Your task to perform on an android device: Check the news Image 0: 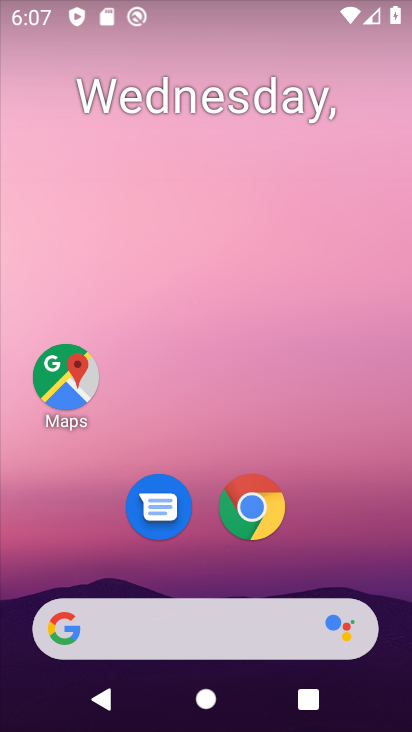
Step 0: drag from (281, 266) to (306, 24)
Your task to perform on an android device: Check the news Image 1: 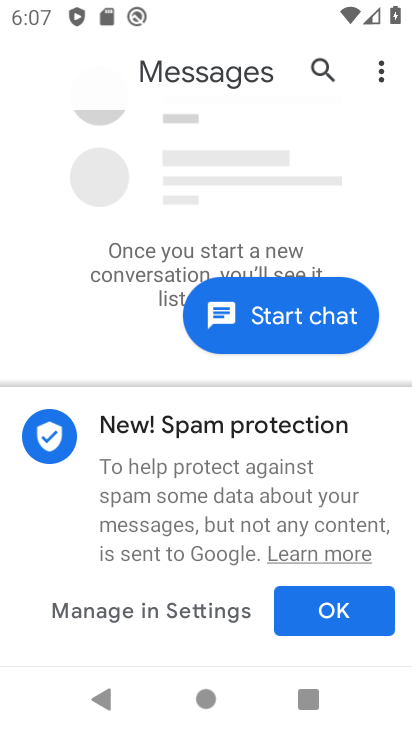
Step 1: press home button
Your task to perform on an android device: Check the news Image 2: 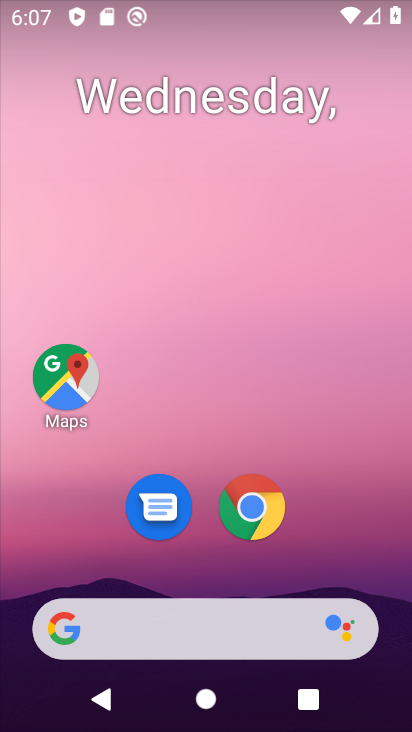
Step 2: drag from (200, 659) to (237, 119)
Your task to perform on an android device: Check the news Image 3: 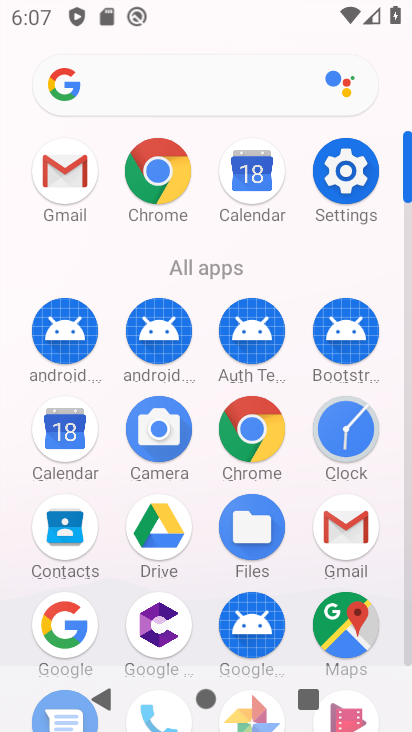
Step 3: click (257, 438)
Your task to perform on an android device: Check the news Image 4: 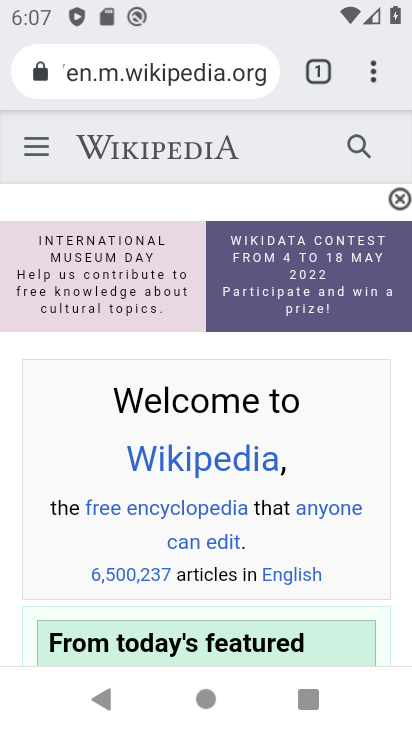
Step 4: click (244, 80)
Your task to perform on an android device: Check the news Image 5: 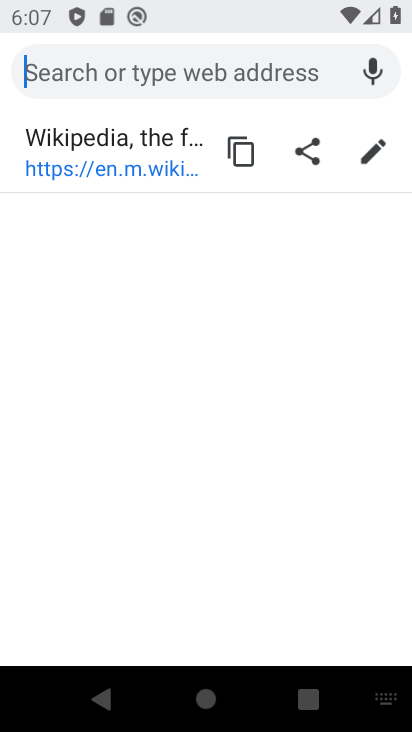
Step 5: type "check the news"
Your task to perform on an android device: Check the news Image 6: 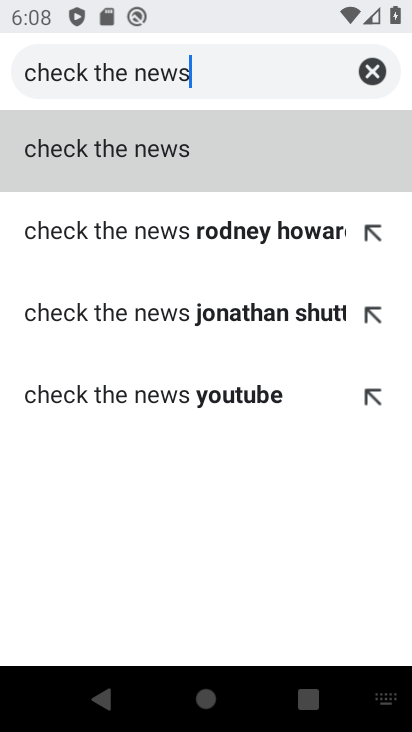
Step 6: click (116, 151)
Your task to perform on an android device: Check the news Image 7: 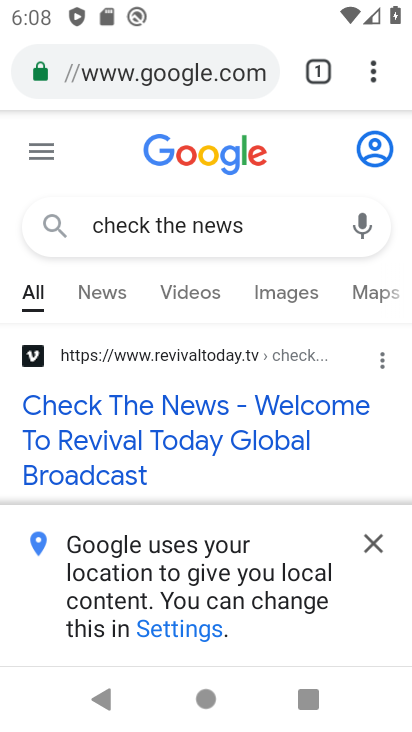
Step 7: task complete